Your task to perform on an android device: Go to notification settings Image 0: 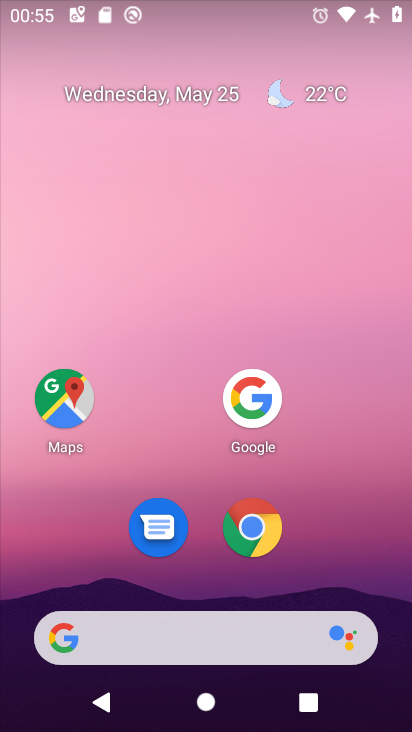
Step 0: press home button
Your task to perform on an android device: Go to notification settings Image 1: 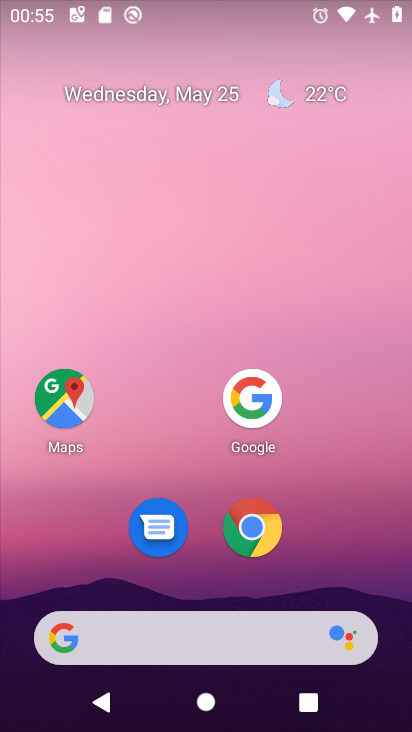
Step 1: drag from (157, 637) to (307, 149)
Your task to perform on an android device: Go to notification settings Image 2: 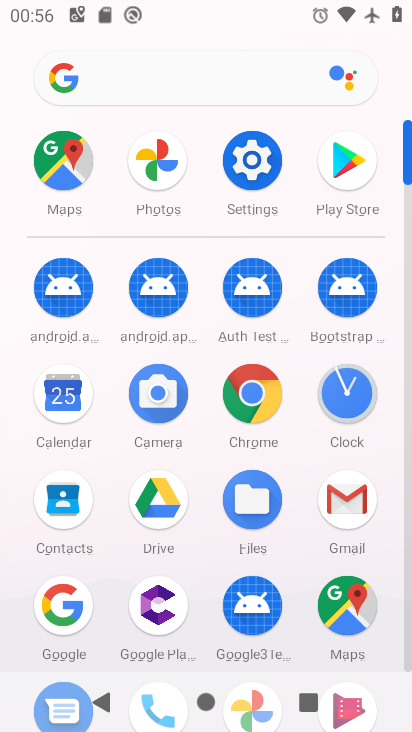
Step 2: click (263, 164)
Your task to perform on an android device: Go to notification settings Image 3: 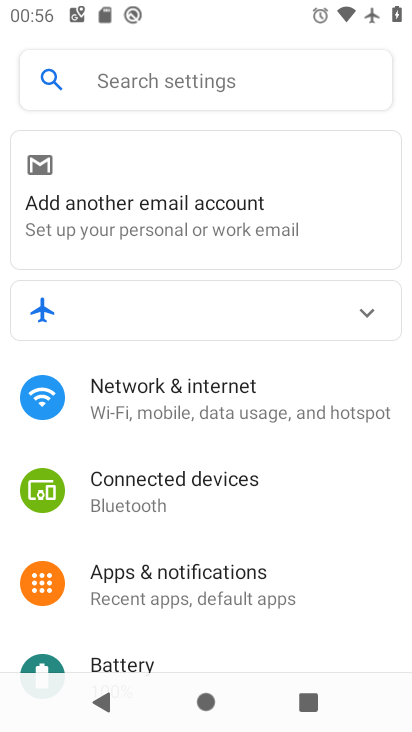
Step 3: click (220, 579)
Your task to perform on an android device: Go to notification settings Image 4: 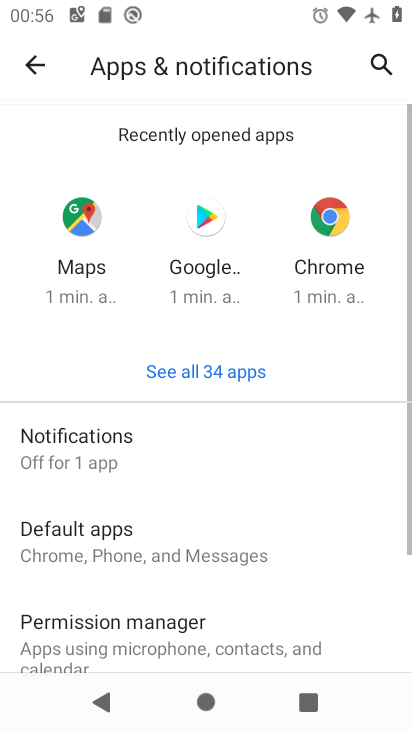
Step 4: click (85, 445)
Your task to perform on an android device: Go to notification settings Image 5: 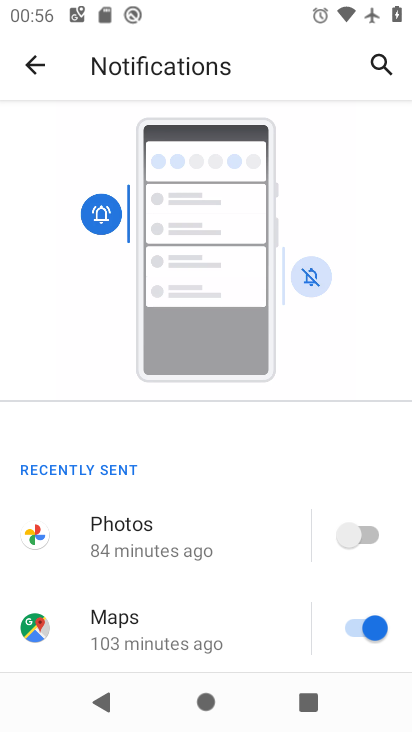
Step 5: task complete